Your task to perform on an android device: Check the news Image 0: 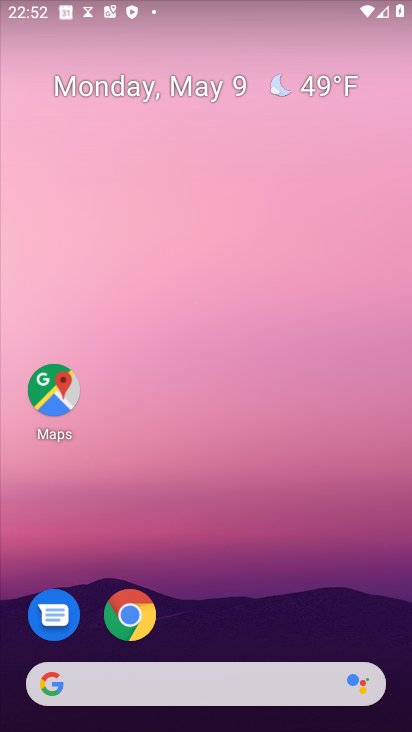
Step 0: drag from (179, 620) to (210, 179)
Your task to perform on an android device: Check the news Image 1: 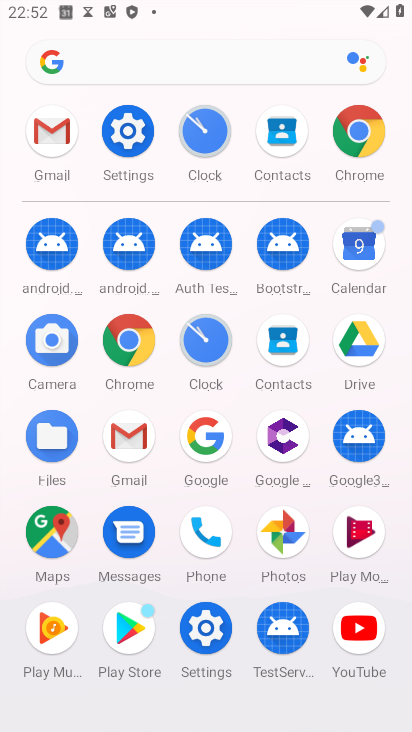
Step 1: click (193, 453)
Your task to perform on an android device: Check the news Image 2: 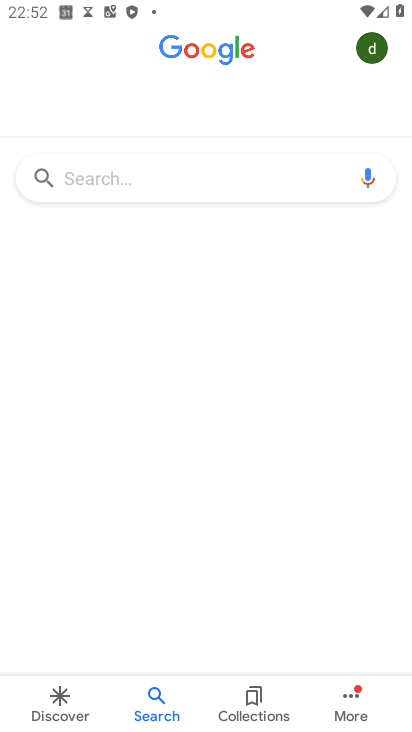
Step 2: click (112, 177)
Your task to perform on an android device: Check the news Image 3: 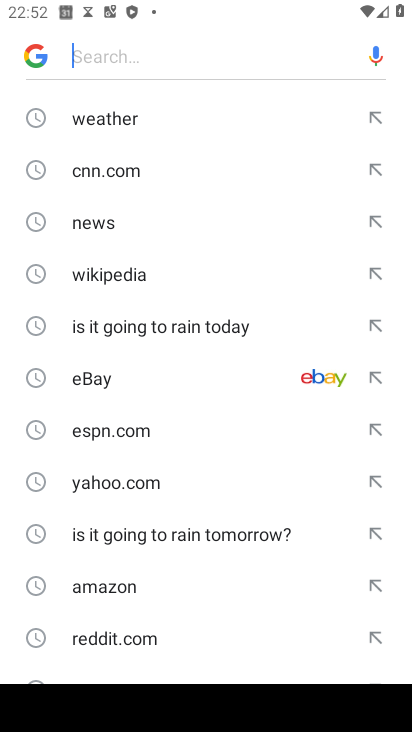
Step 3: click (118, 231)
Your task to perform on an android device: Check the news Image 4: 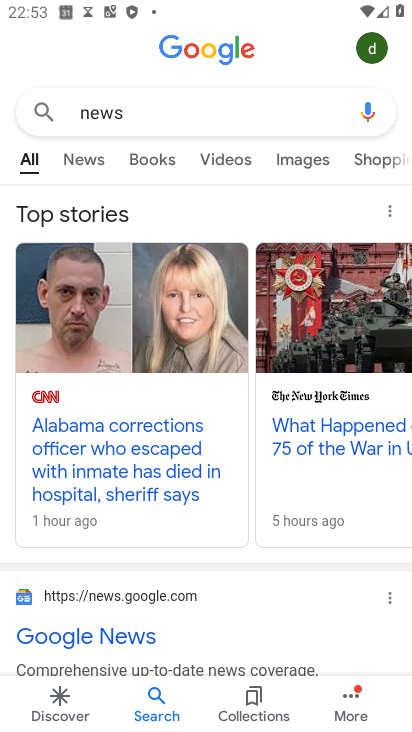
Step 4: task complete